Your task to perform on an android device: Go to battery settings Image 0: 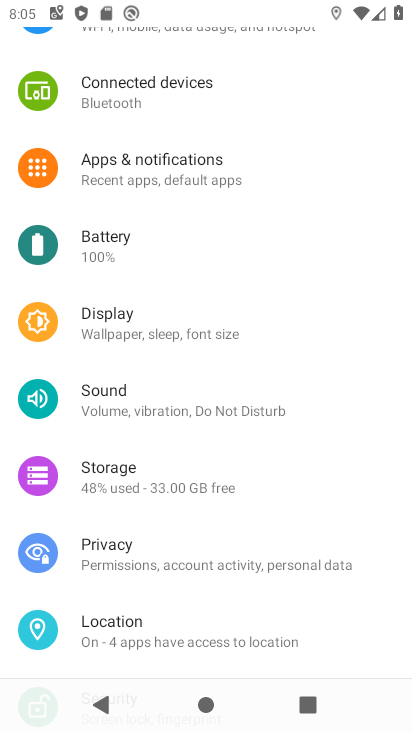
Step 0: press home button
Your task to perform on an android device: Go to battery settings Image 1: 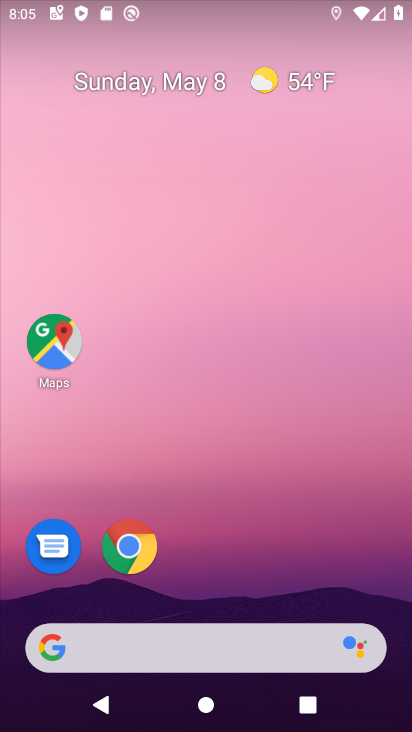
Step 1: drag from (397, 466) to (404, 192)
Your task to perform on an android device: Go to battery settings Image 2: 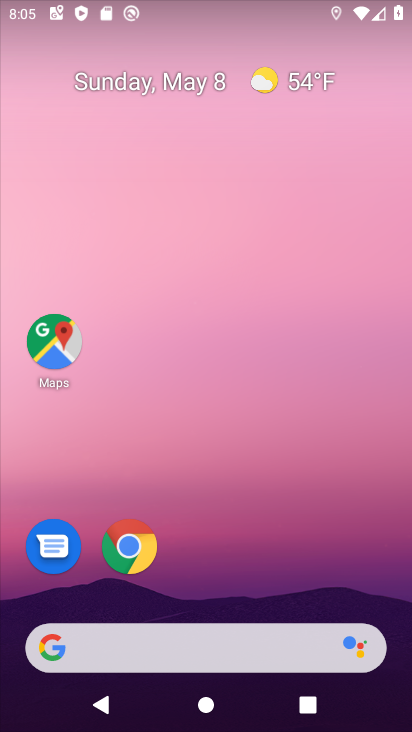
Step 2: drag from (397, 521) to (357, 106)
Your task to perform on an android device: Go to battery settings Image 3: 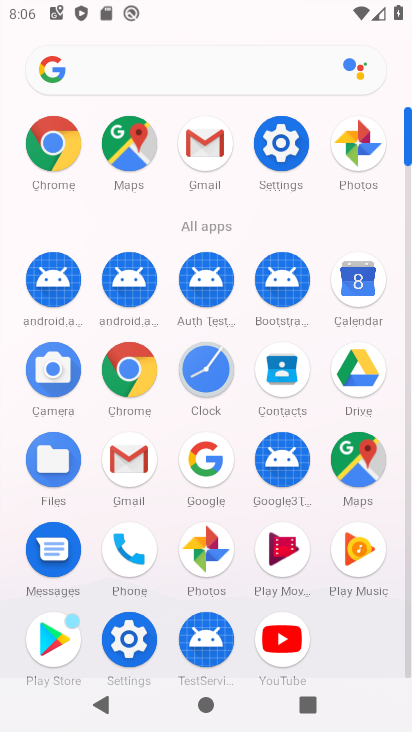
Step 3: click (267, 136)
Your task to perform on an android device: Go to battery settings Image 4: 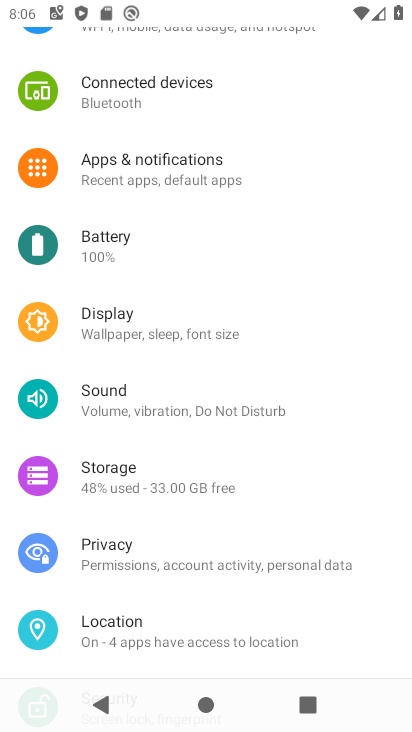
Step 4: click (124, 236)
Your task to perform on an android device: Go to battery settings Image 5: 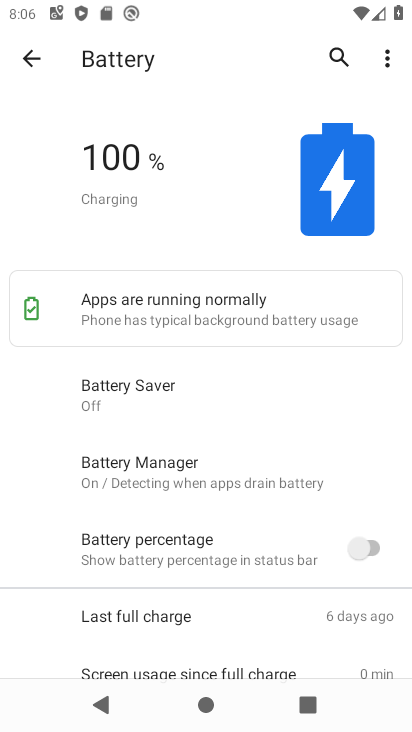
Step 5: click (381, 55)
Your task to perform on an android device: Go to battery settings Image 6: 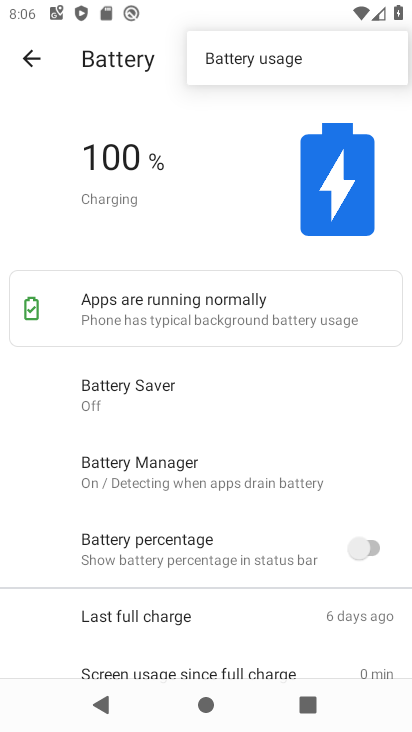
Step 6: click (286, 56)
Your task to perform on an android device: Go to battery settings Image 7: 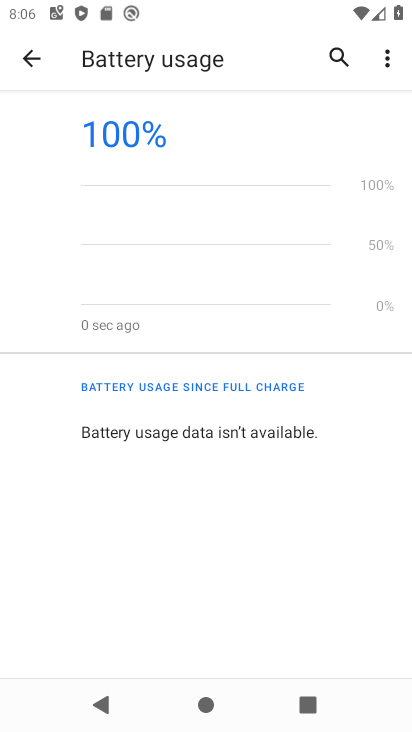
Step 7: task complete